Your task to perform on an android device: Open settings on Google Maps Image 0: 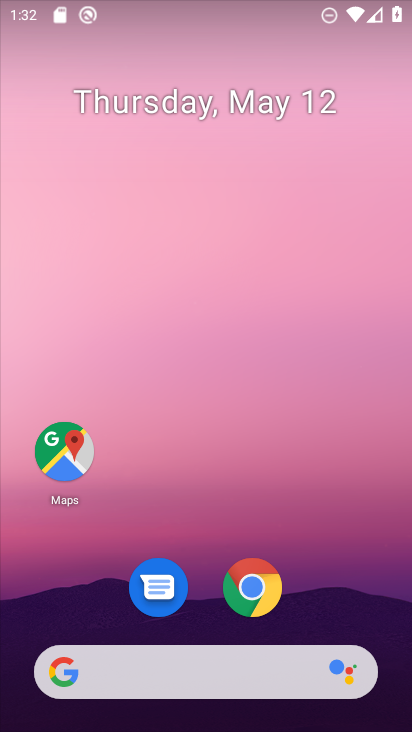
Step 0: click (63, 457)
Your task to perform on an android device: Open settings on Google Maps Image 1: 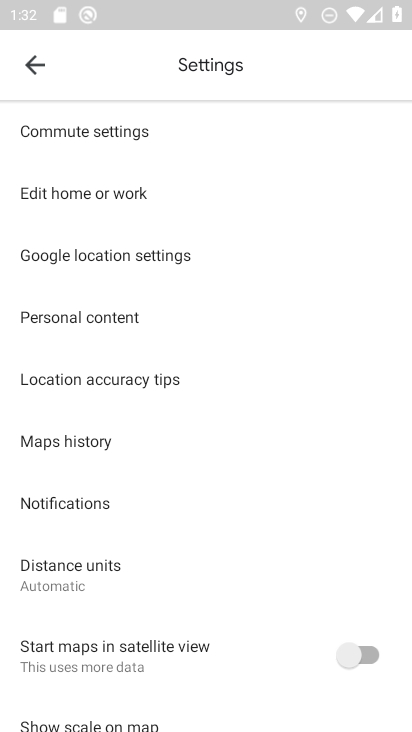
Step 1: task complete